Your task to perform on an android device: Open accessibility settings Image 0: 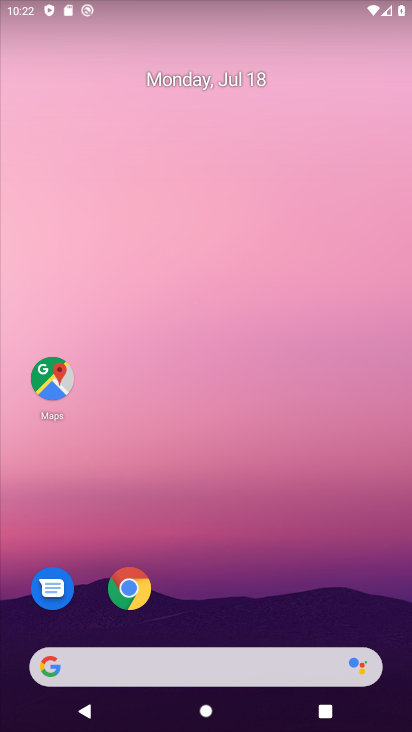
Step 0: drag from (280, 632) to (208, 108)
Your task to perform on an android device: Open accessibility settings Image 1: 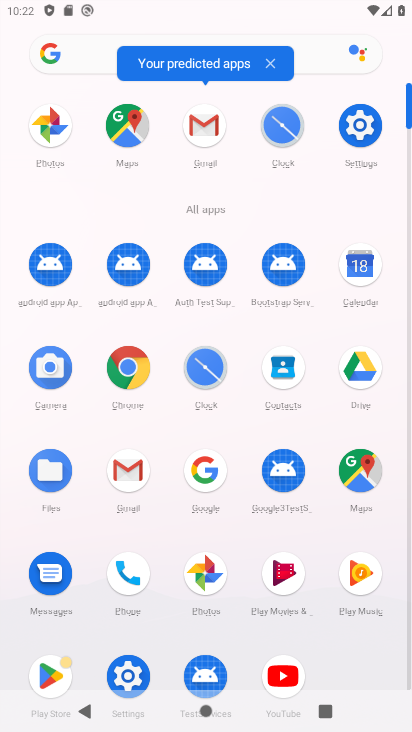
Step 1: click (364, 149)
Your task to perform on an android device: Open accessibility settings Image 2: 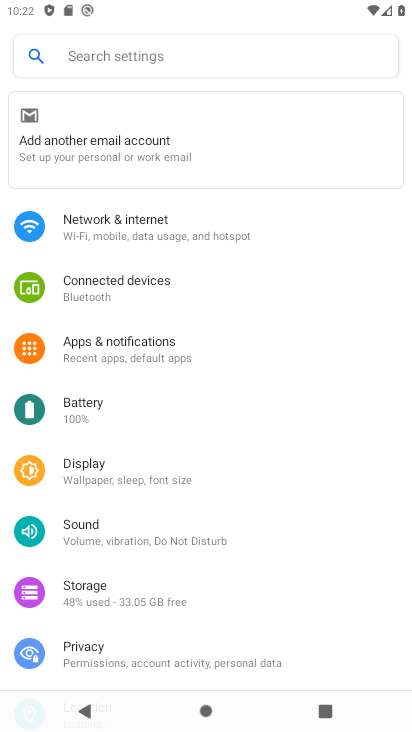
Step 2: drag from (169, 627) to (115, 319)
Your task to perform on an android device: Open accessibility settings Image 3: 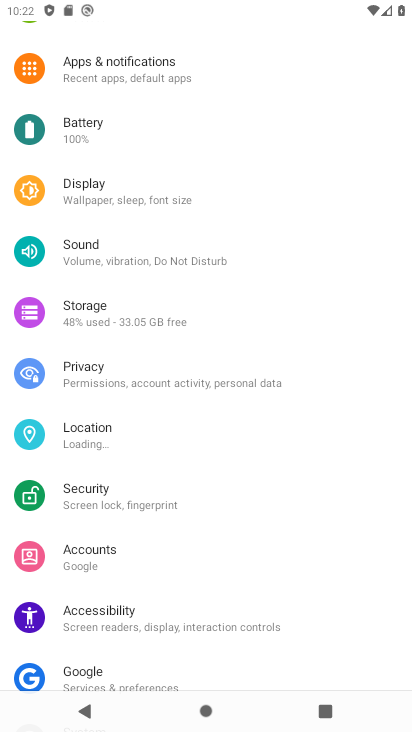
Step 3: click (189, 624)
Your task to perform on an android device: Open accessibility settings Image 4: 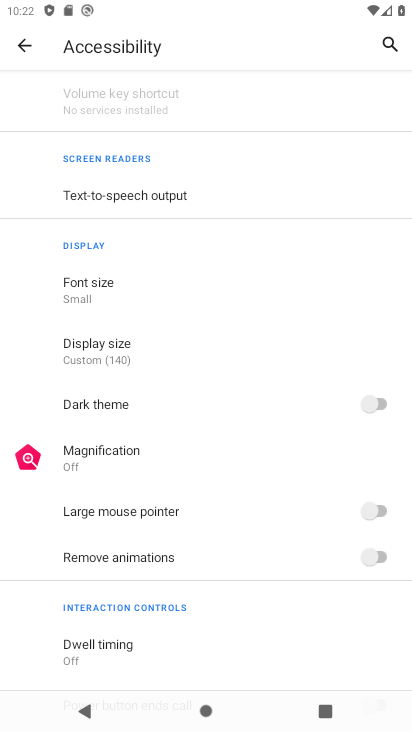
Step 4: task complete